Your task to perform on an android device: Go to Google maps Image 0: 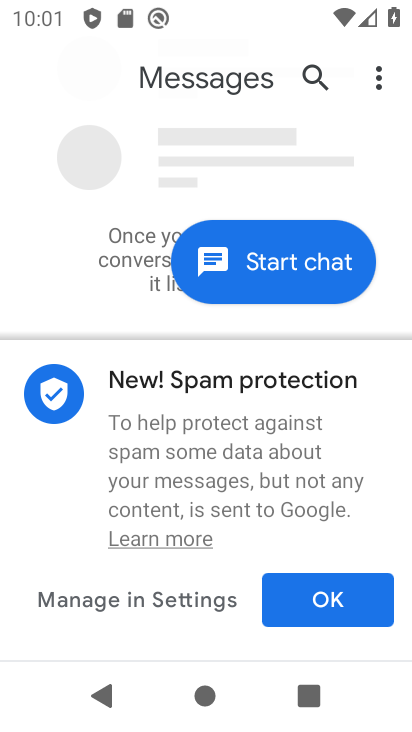
Step 0: press home button
Your task to perform on an android device: Go to Google maps Image 1: 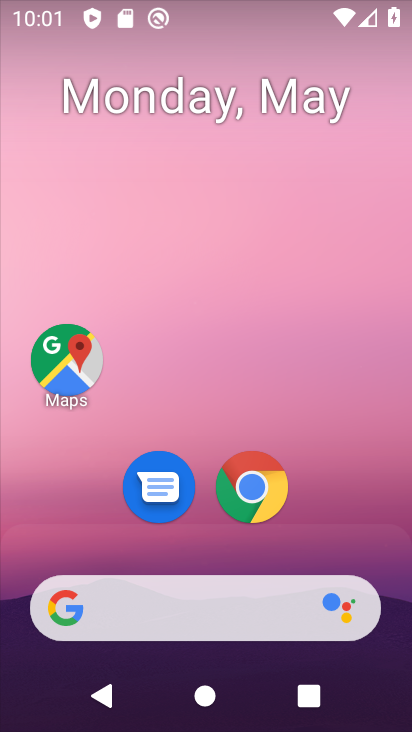
Step 1: click (64, 335)
Your task to perform on an android device: Go to Google maps Image 2: 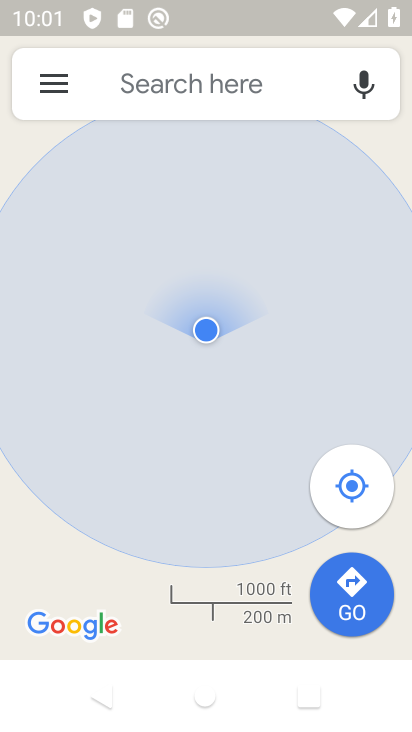
Step 2: task complete